Your task to perform on an android device: move an email to a new category in the gmail app Image 0: 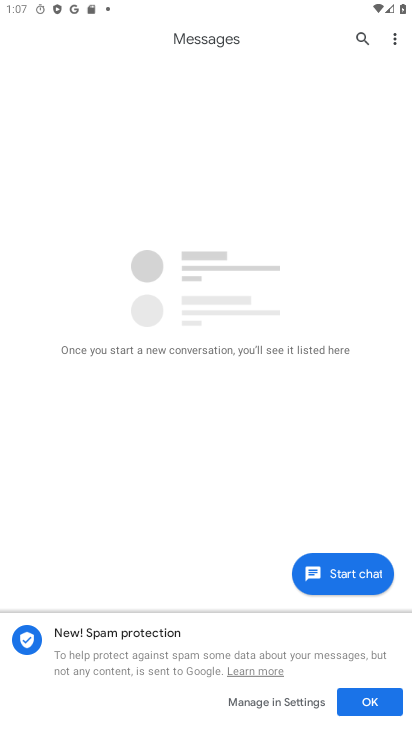
Step 0: press home button
Your task to perform on an android device: move an email to a new category in the gmail app Image 1: 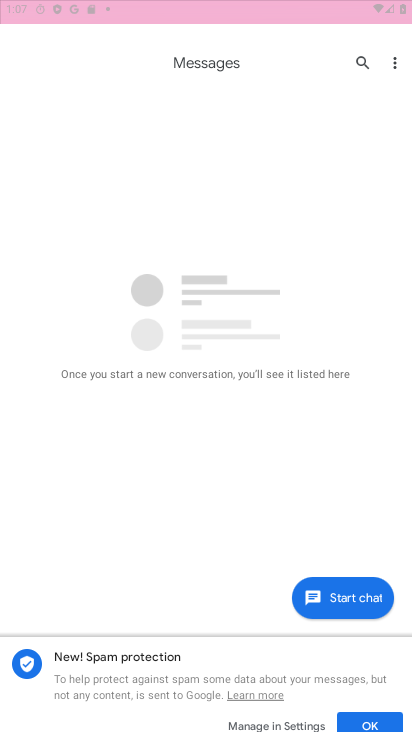
Step 1: drag from (314, 575) to (326, 126)
Your task to perform on an android device: move an email to a new category in the gmail app Image 2: 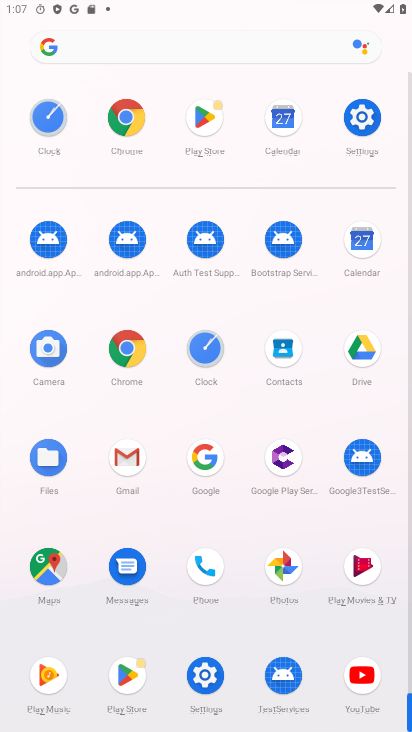
Step 2: click (120, 449)
Your task to perform on an android device: move an email to a new category in the gmail app Image 3: 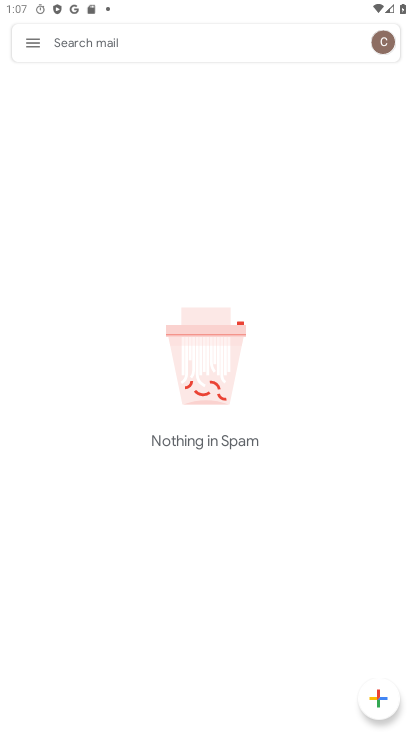
Step 3: drag from (224, 618) to (215, 383)
Your task to perform on an android device: move an email to a new category in the gmail app Image 4: 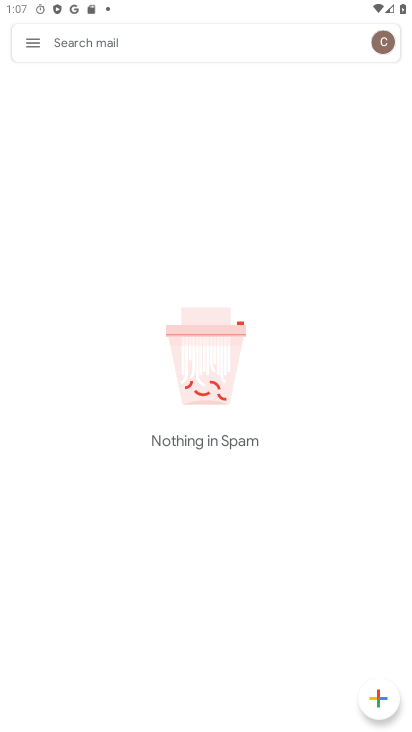
Step 4: click (37, 41)
Your task to perform on an android device: move an email to a new category in the gmail app Image 5: 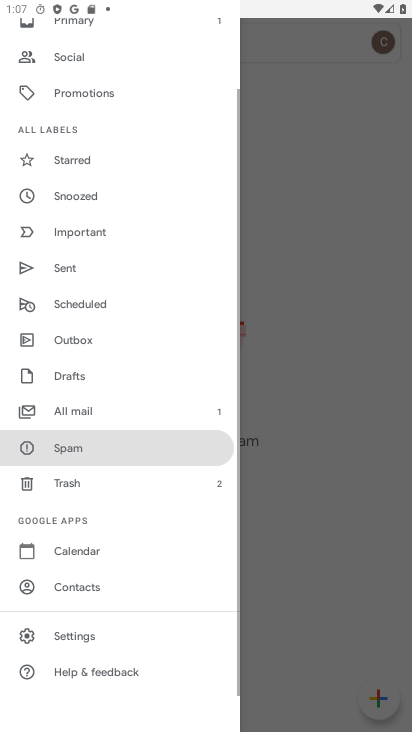
Step 5: drag from (70, 172) to (120, 649)
Your task to perform on an android device: move an email to a new category in the gmail app Image 6: 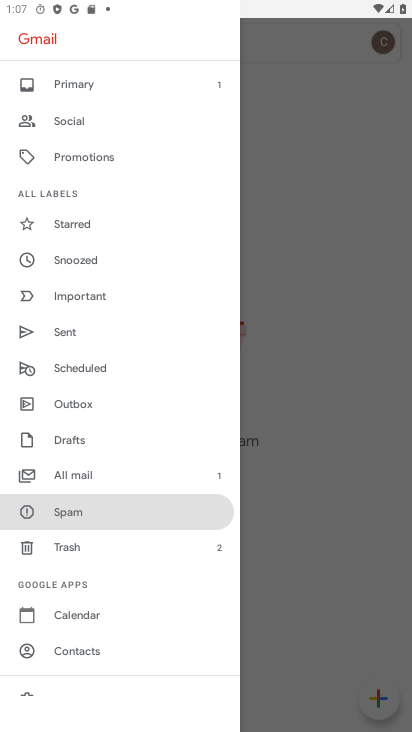
Step 6: click (119, 84)
Your task to perform on an android device: move an email to a new category in the gmail app Image 7: 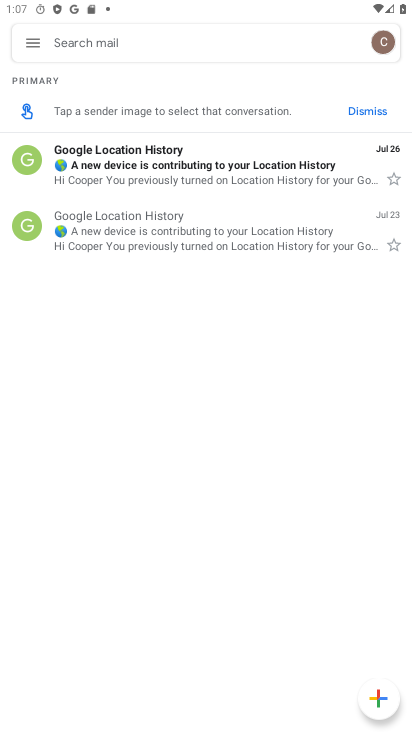
Step 7: click (151, 167)
Your task to perform on an android device: move an email to a new category in the gmail app Image 8: 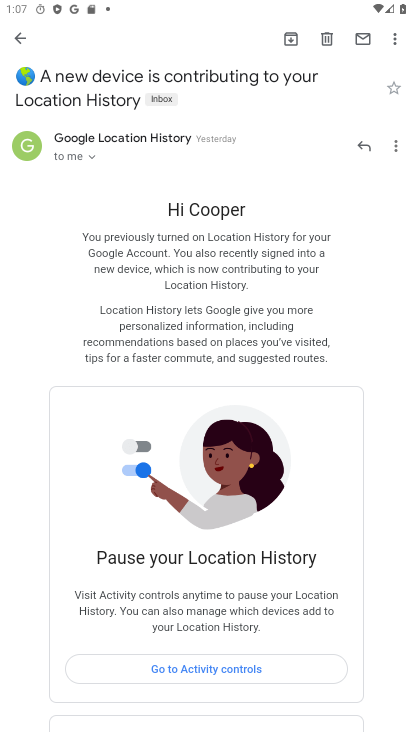
Step 8: click (386, 87)
Your task to perform on an android device: move an email to a new category in the gmail app Image 9: 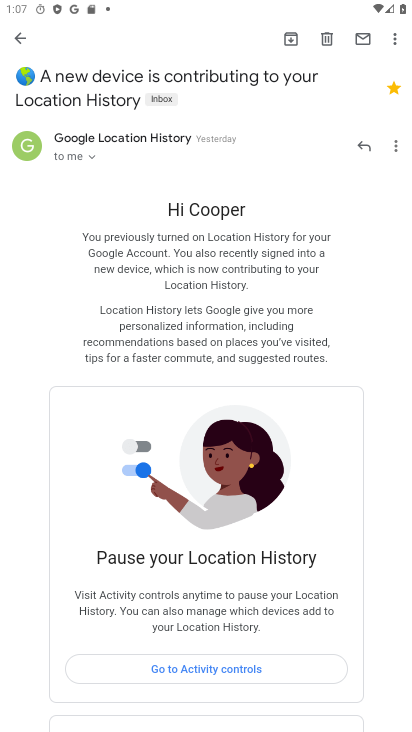
Step 9: task complete